Your task to perform on an android device: change keyboard looks Image 0: 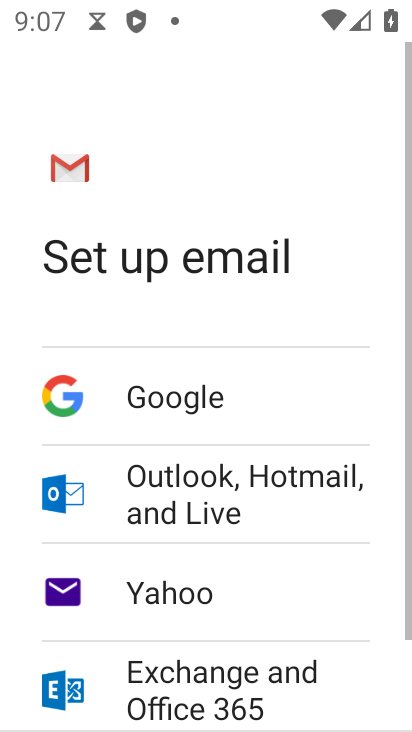
Step 0: press back button
Your task to perform on an android device: change keyboard looks Image 1: 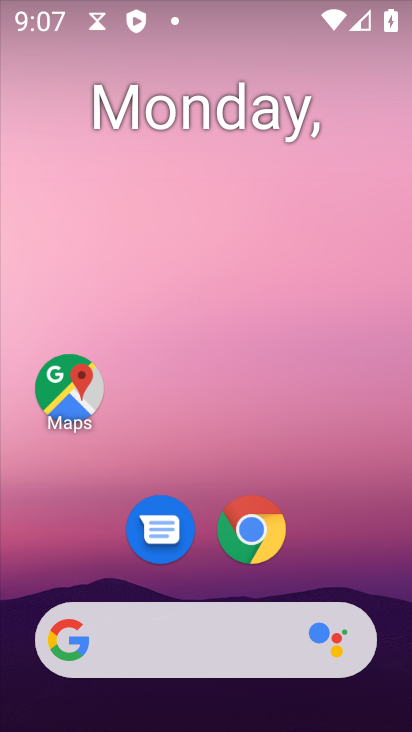
Step 1: drag from (215, 458) to (173, 188)
Your task to perform on an android device: change keyboard looks Image 2: 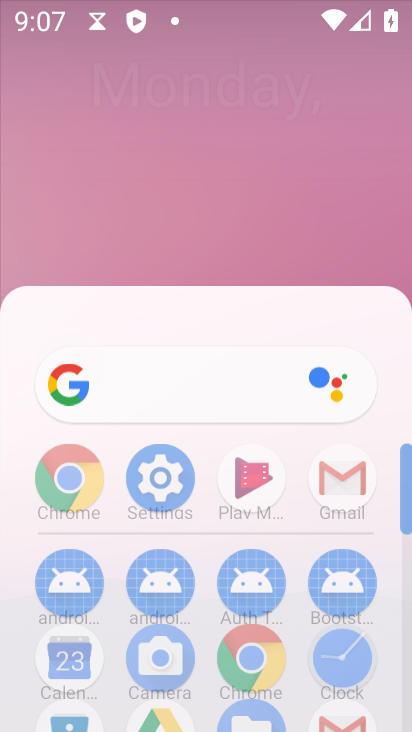
Step 2: drag from (225, 647) to (183, 168)
Your task to perform on an android device: change keyboard looks Image 3: 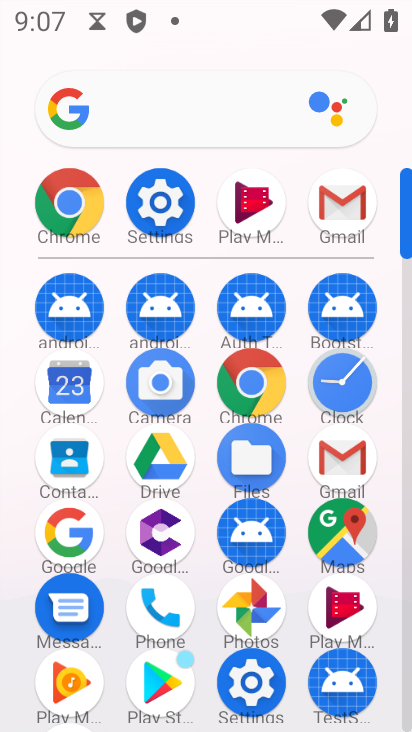
Step 3: click (157, 190)
Your task to perform on an android device: change keyboard looks Image 4: 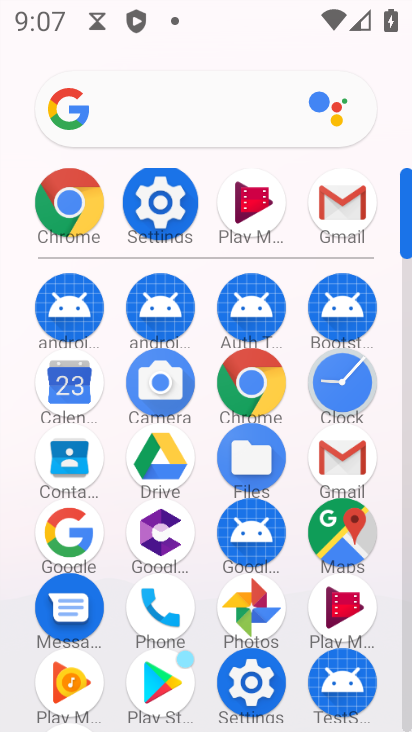
Step 4: click (157, 190)
Your task to perform on an android device: change keyboard looks Image 5: 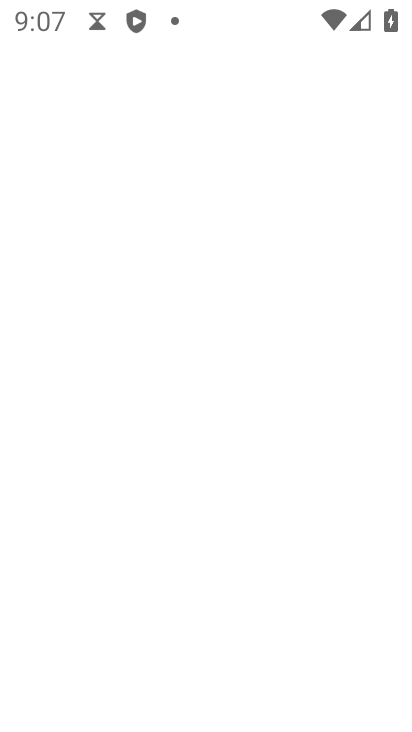
Step 5: click (161, 193)
Your task to perform on an android device: change keyboard looks Image 6: 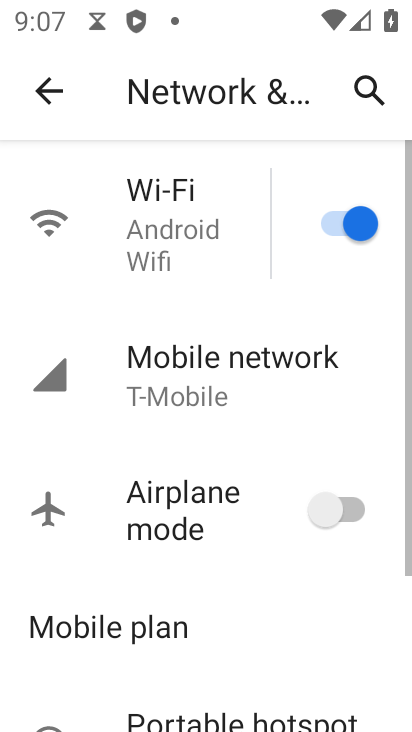
Step 6: click (33, 95)
Your task to perform on an android device: change keyboard looks Image 7: 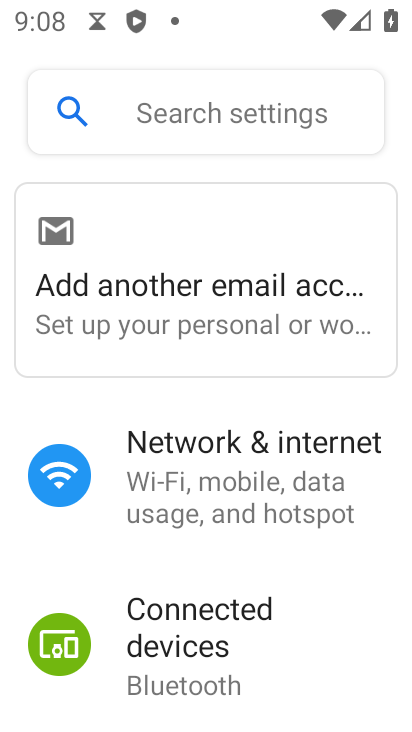
Step 7: drag from (241, 582) to (123, 189)
Your task to perform on an android device: change keyboard looks Image 8: 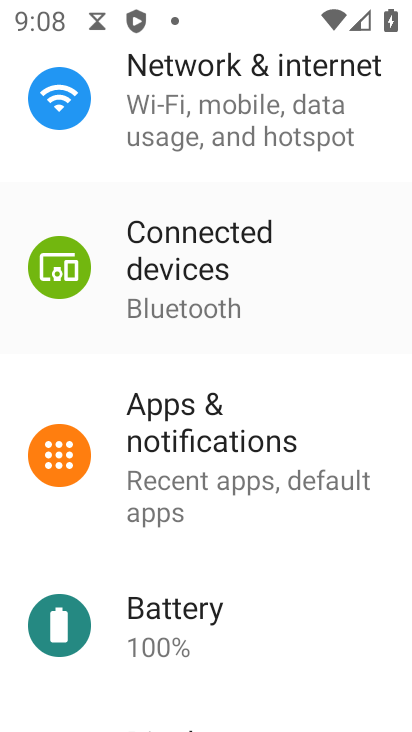
Step 8: drag from (201, 522) to (184, 141)
Your task to perform on an android device: change keyboard looks Image 9: 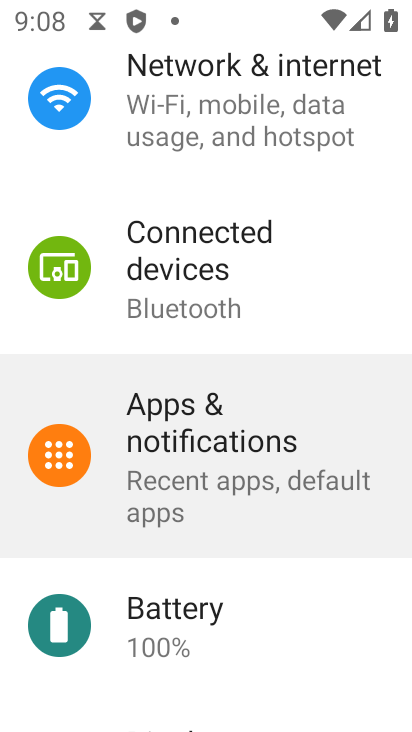
Step 9: drag from (232, 461) to (175, 198)
Your task to perform on an android device: change keyboard looks Image 10: 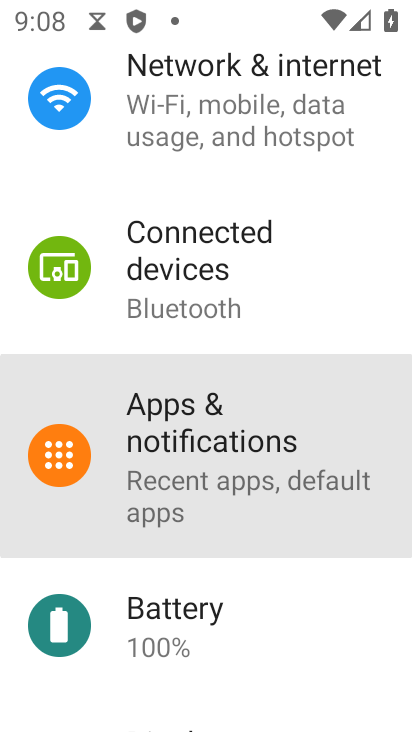
Step 10: drag from (190, 623) to (204, 109)
Your task to perform on an android device: change keyboard looks Image 11: 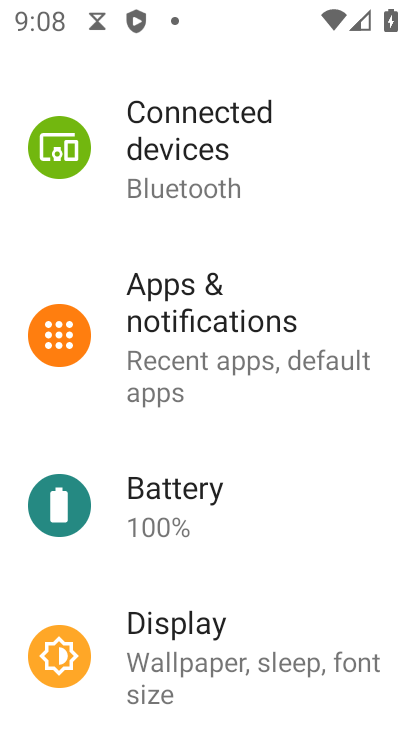
Step 11: drag from (224, 546) to (216, 73)
Your task to perform on an android device: change keyboard looks Image 12: 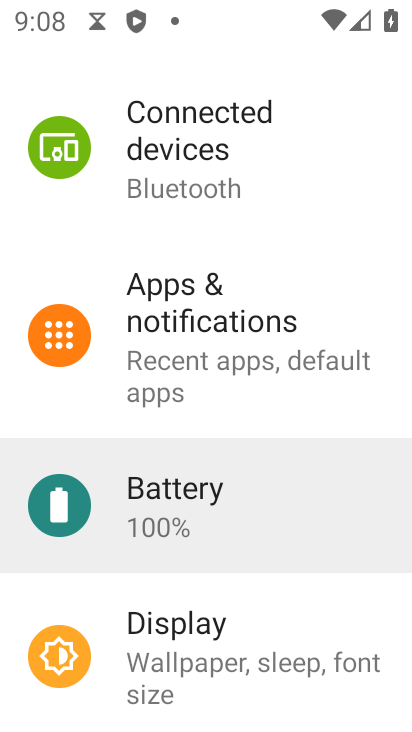
Step 12: drag from (244, 582) to (230, 166)
Your task to perform on an android device: change keyboard looks Image 13: 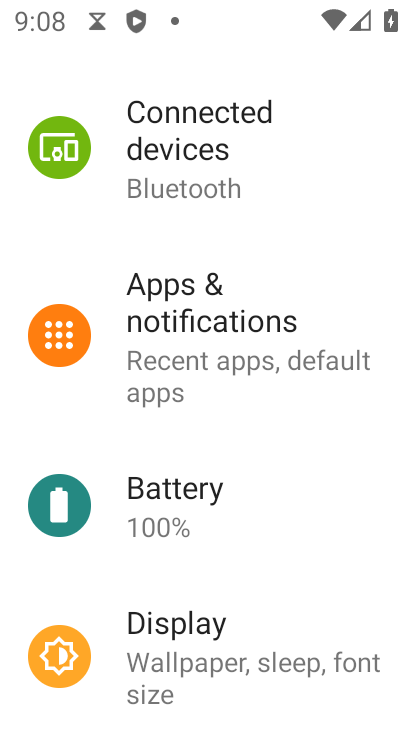
Step 13: drag from (219, 470) to (206, 14)
Your task to perform on an android device: change keyboard looks Image 14: 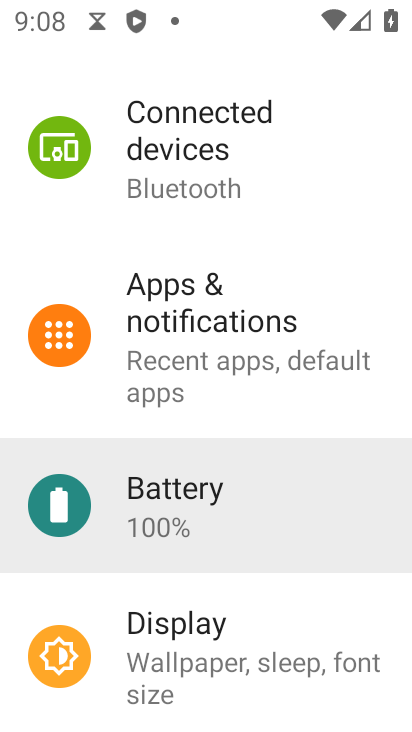
Step 14: drag from (255, 511) to (247, 68)
Your task to perform on an android device: change keyboard looks Image 15: 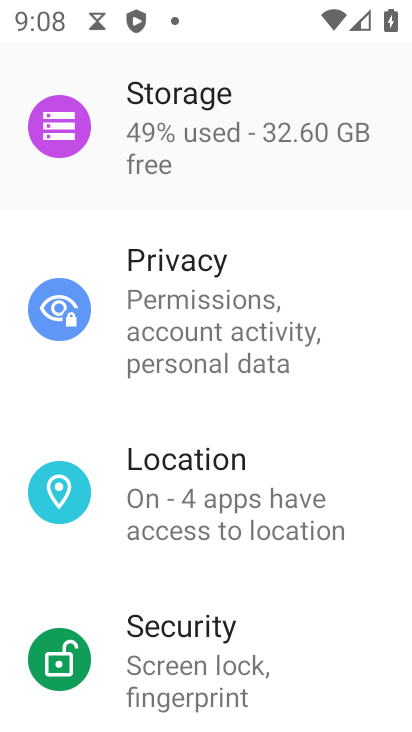
Step 15: drag from (257, 581) to (192, 219)
Your task to perform on an android device: change keyboard looks Image 16: 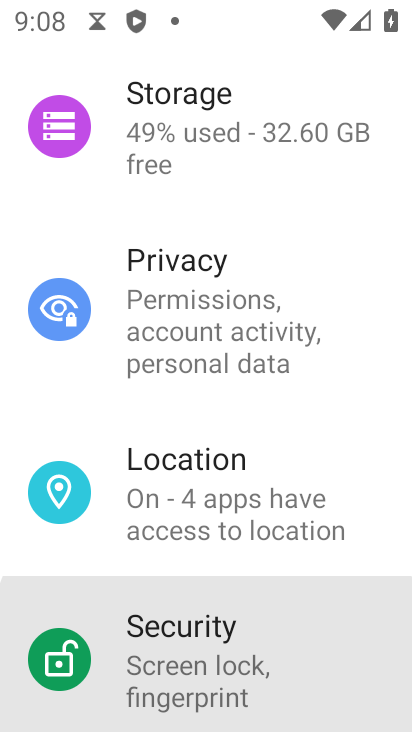
Step 16: drag from (239, 496) to (202, 157)
Your task to perform on an android device: change keyboard looks Image 17: 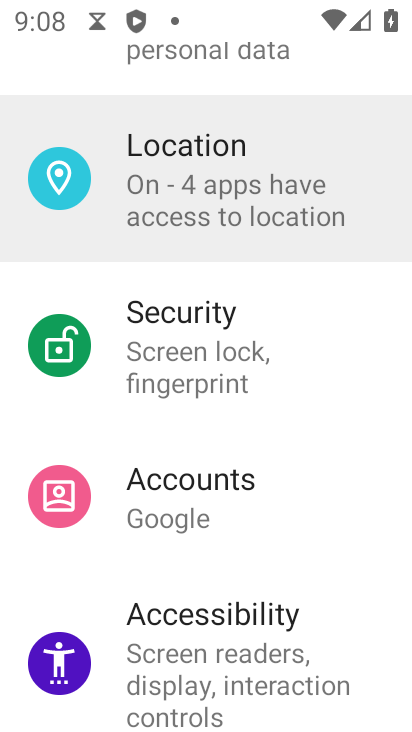
Step 17: drag from (249, 685) to (233, 192)
Your task to perform on an android device: change keyboard looks Image 18: 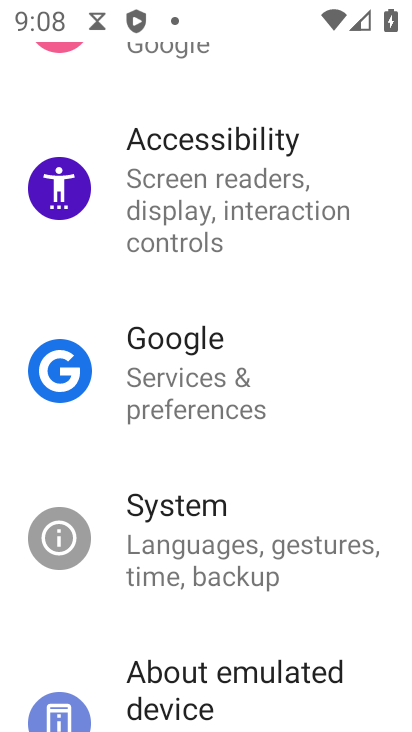
Step 18: drag from (272, 613) to (265, 169)
Your task to perform on an android device: change keyboard looks Image 19: 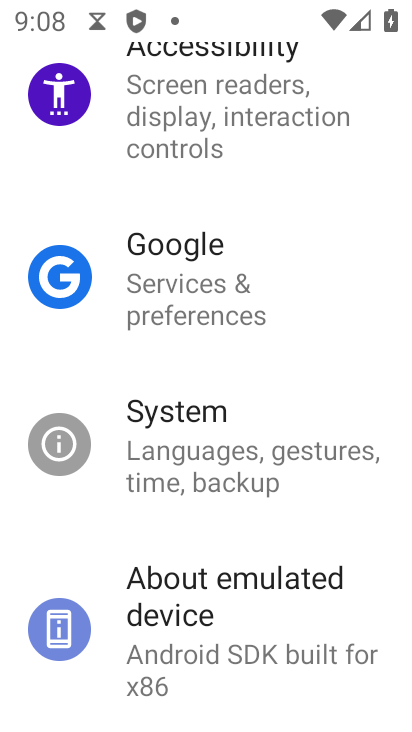
Step 19: drag from (191, 570) to (147, 233)
Your task to perform on an android device: change keyboard looks Image 20: 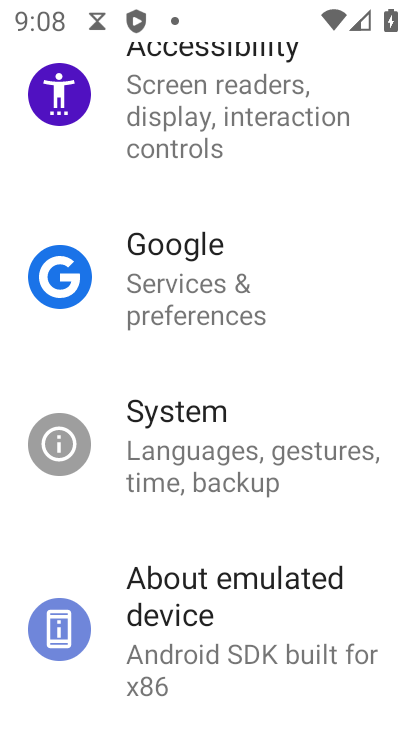
Step 20: click (202, 458)
Your task to perform on an android device: change keyboard looks Image 21: 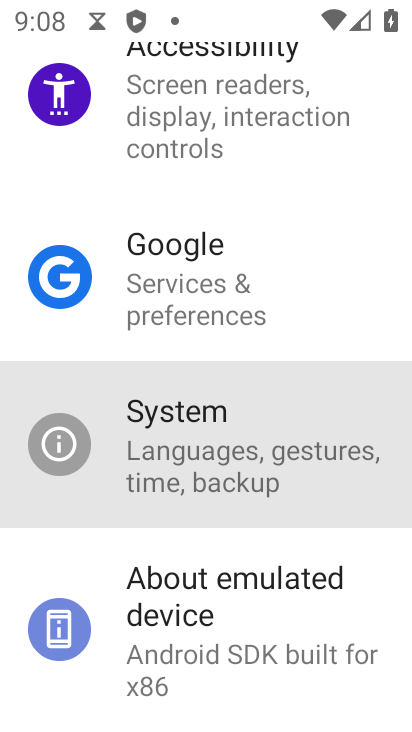
Step 21: click (202, 454)
Your task to perform on an android device: change keyboard looks Image 22: 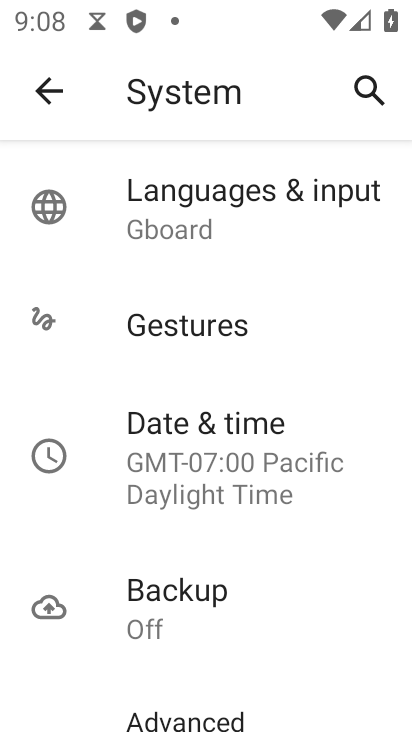
Step 22: click (160, 221)
Your task to perform on an android device: change keyboard looks Image 23: 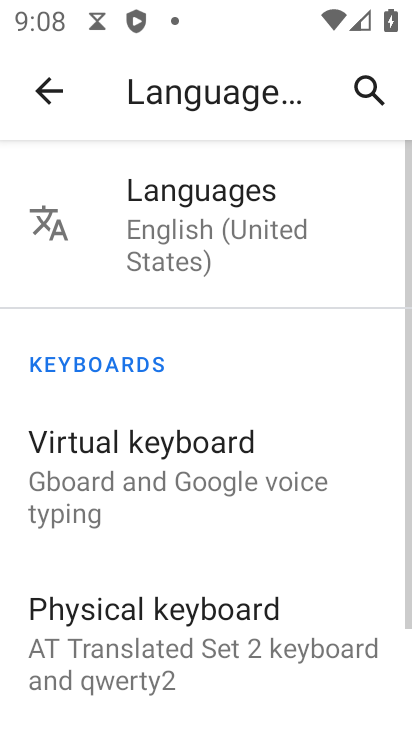
Step 23: click (89, 455)
Your task to perform on an android device: change keyboard looks Image 24: 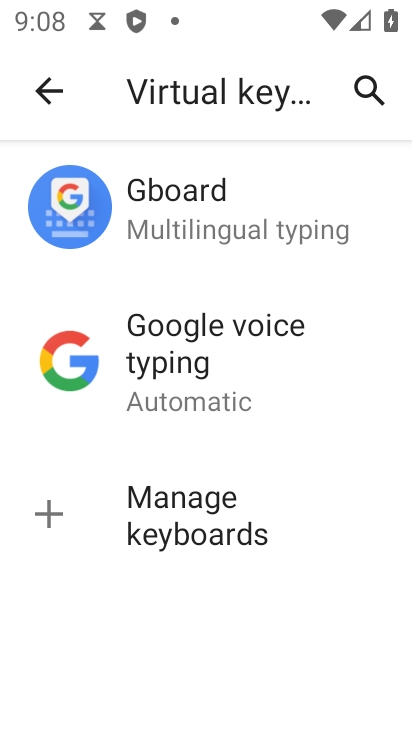
Step 24: click (149, 229)
Your task to perform on an android device: change keyboard looks Image 25: 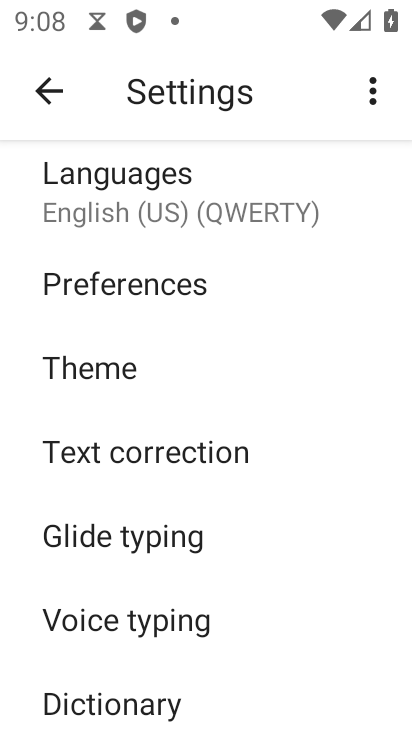
Step 25: click (82, 387)
Your task to perform on an android device: change keyboard looks Image 26: 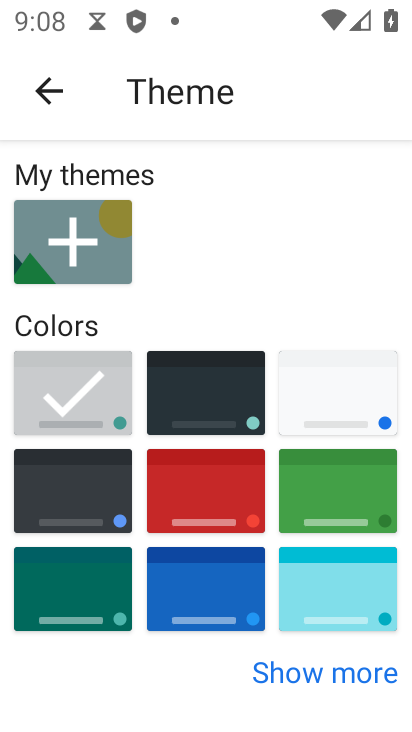
Step 26: click (87, 510)
Your task to perform on an android device: change keyboard looks Image 27: 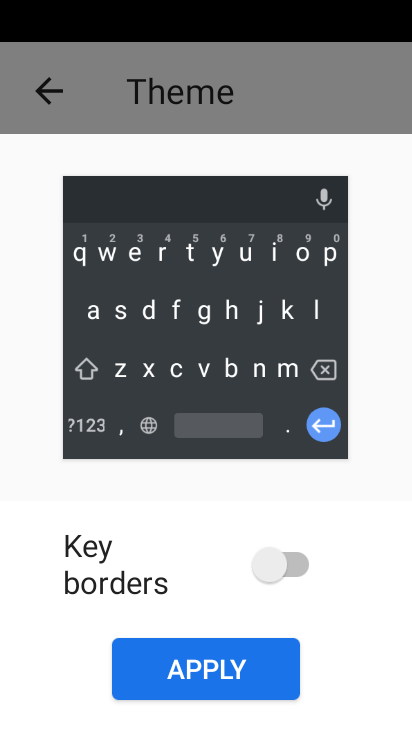
Step 27: task complete